Your task to perform on an android device: Go to accessibility settings Image 0: 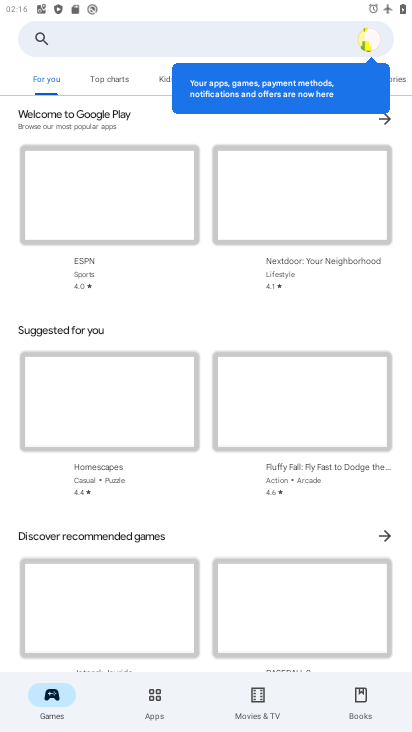
Step 0: press home button
Your task to perform on an android device: Go to accessibility settings Image 1: 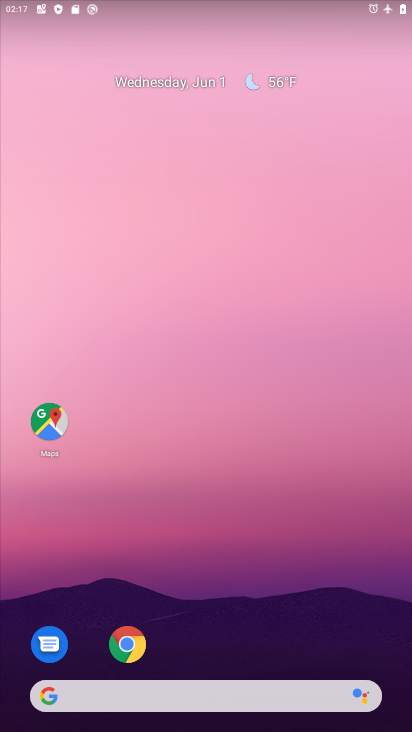
Step 1: drag from (247, 679) to (216, 284)
Your task to perform on an android device: Go to accessibility settings Image 2: 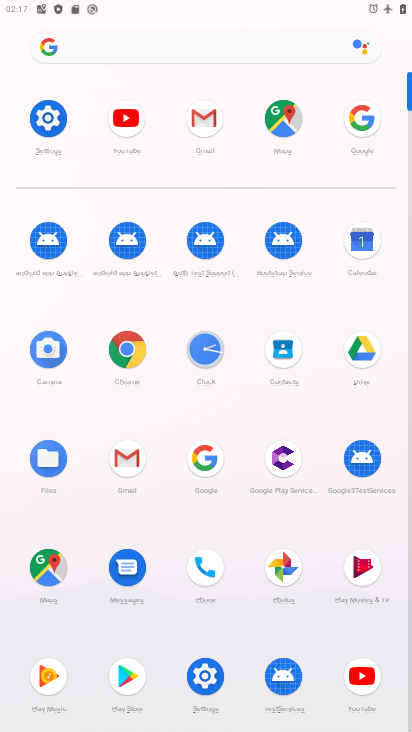
Step 2: click (57, 112)
Your task to perform on an android device: Go to accessibility settings Image 3: 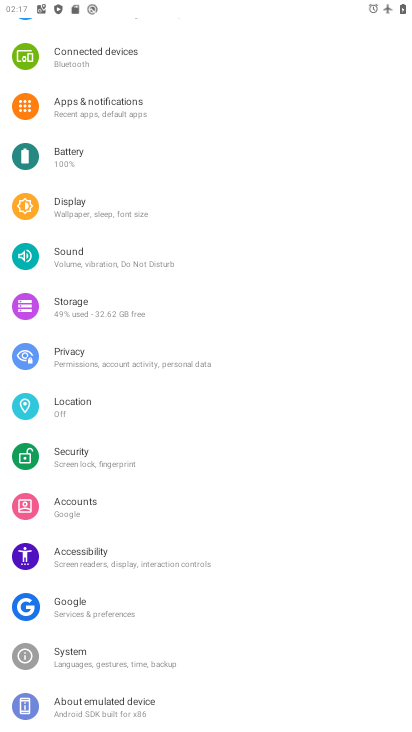
Step 3: click (97, 561)
Your task to perform on an android device: Go to accessibility settings Image 4: 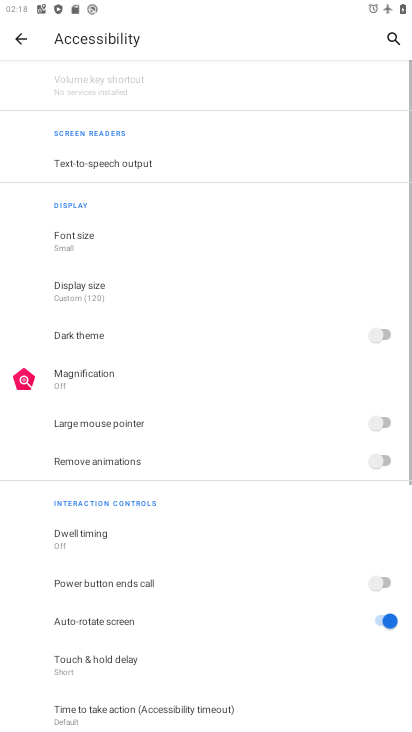
Step 4: task complete